Your task to perform on an android device: check data usage Image 0: 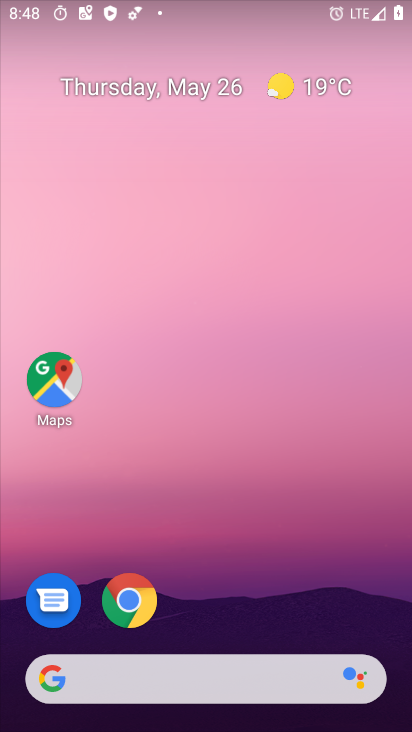
Step 0: press home button
Your task to perform on an android device: check data usage Image 1: 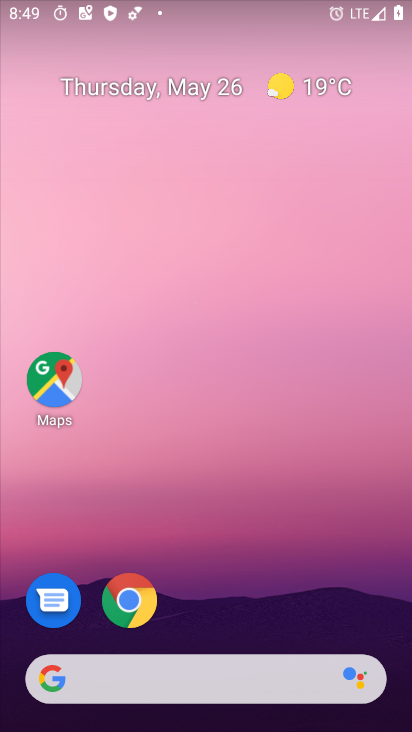
Step 1: drag from (314, 617) to (342, 256)
Your task to perform on an android device: check data usage Image 2: 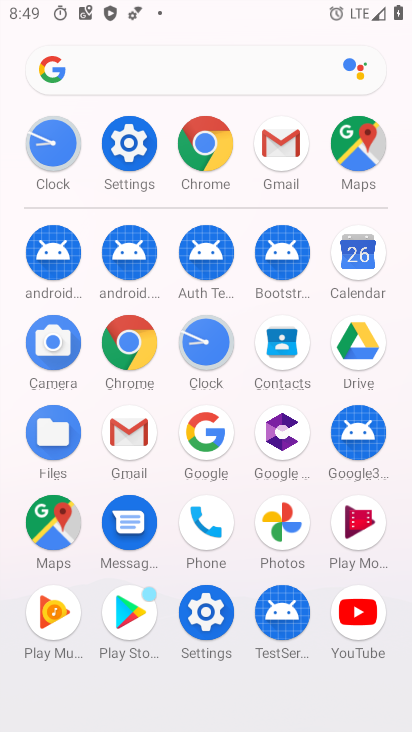
Step 2: click (140, 164)
Your task to perform on an android device: check data usage Image 3: 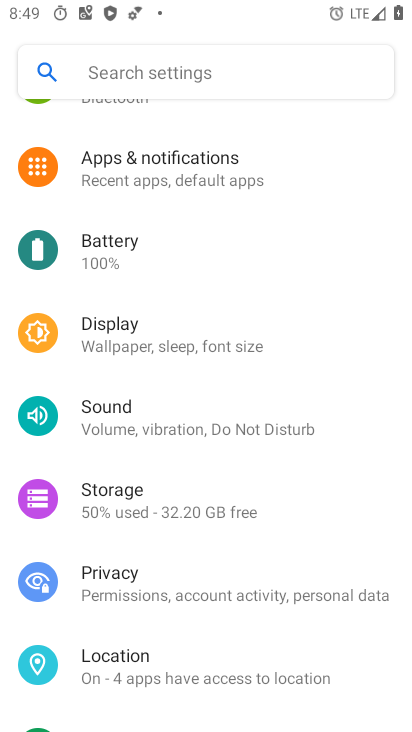
Step 3: drag from (191, 116) to (248, 457)
Your task to perform on an android device: check data usage Image 4: 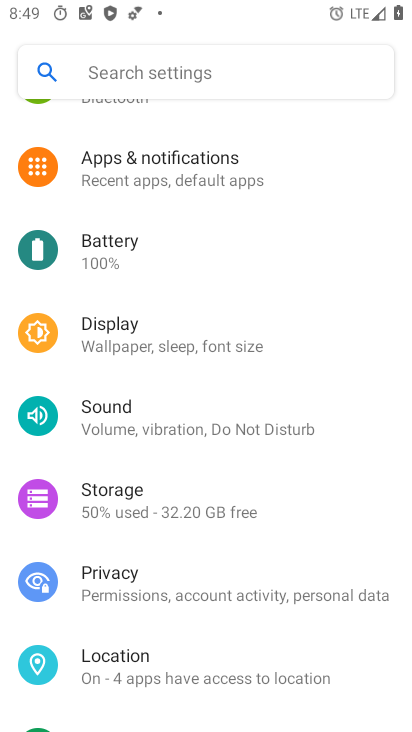
Step 4: drag from (275, 136) to (297, 510)
Your task to perform on an android device: check data usage Image 5: 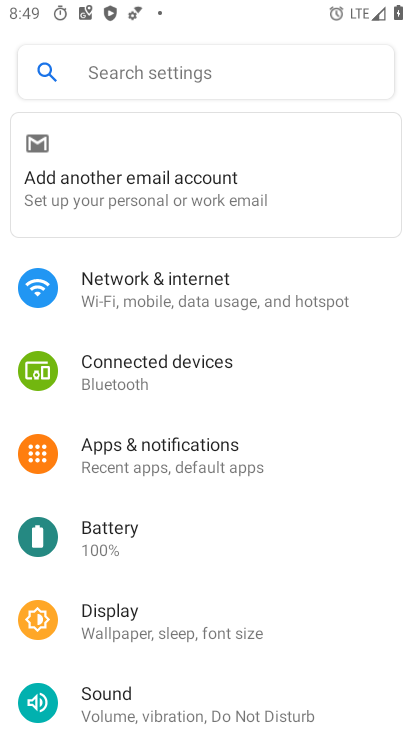
Step 5: click (168, 295)
Your task to perform on an android device: check data usage Image 6: 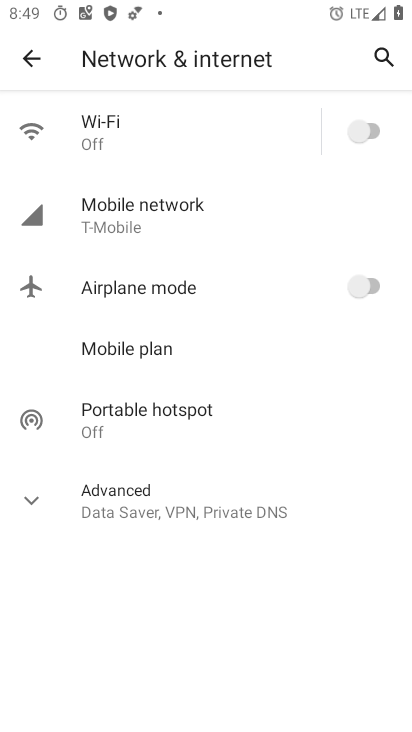
Step 6: click (129, 215)
Your task to perform on an android device: check data usage Image 7: 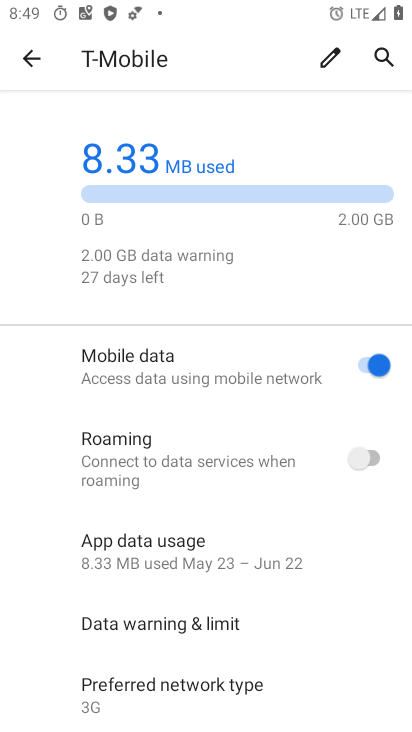
Step 7: click (138, 545)
Your task to perform on an android device: check data usage Image 8: 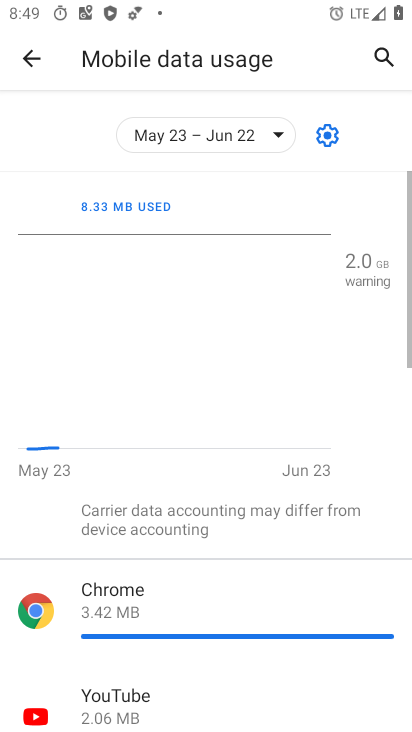
Step 8: task complete